Your task to perform on an android device: empty trash in the gmail app Image 0: 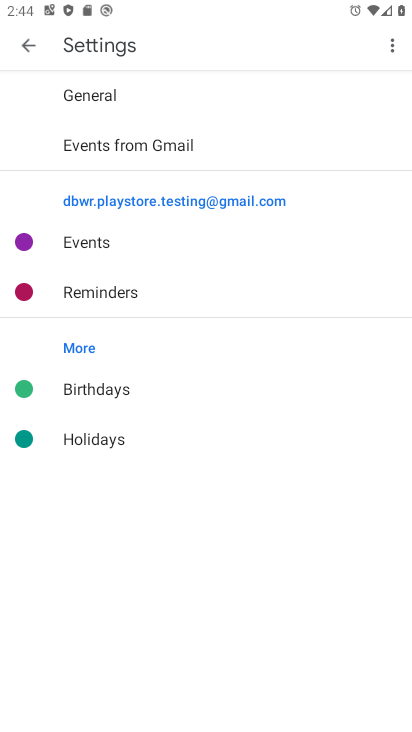
Step 0: press home button
Your task to perform on an android device: empty trash in the gmail app Image 1: 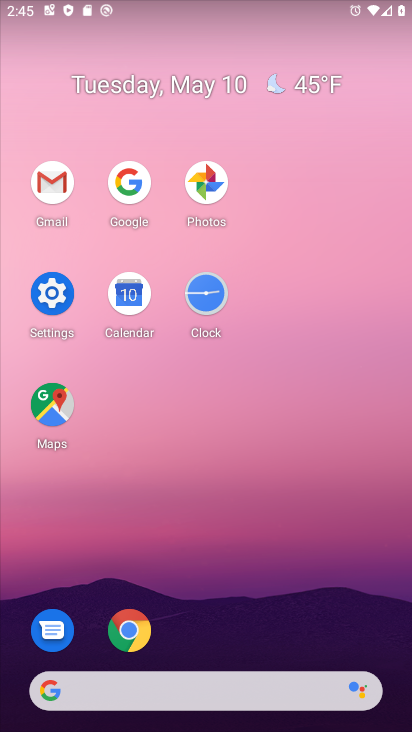
Step 1: drag from (236, 626) to (265, 162)
Your task to perform on an android device: empty trash in the gmail app Image 2: 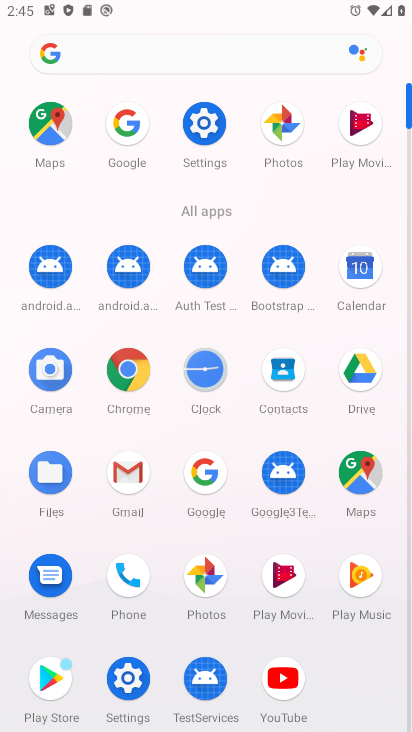
Step 2: drag from (132, 465) to (274, 200)
Your task to perform on an android device: empty trash in the gmail app Image 3: 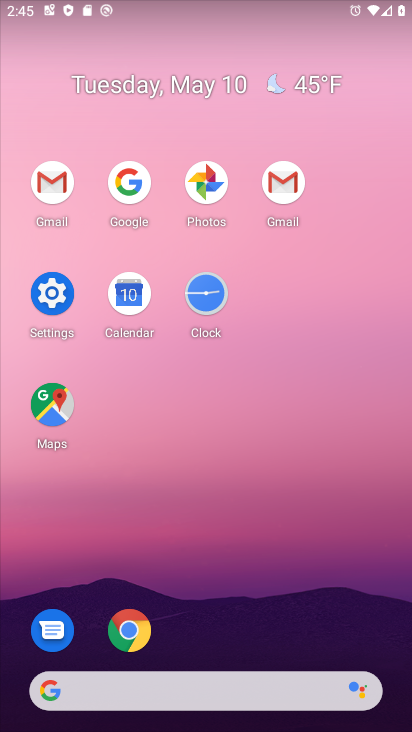
Step 3: click (278, 189)
Your task to perform on an android device: empty trash in the gmail app Image 4: 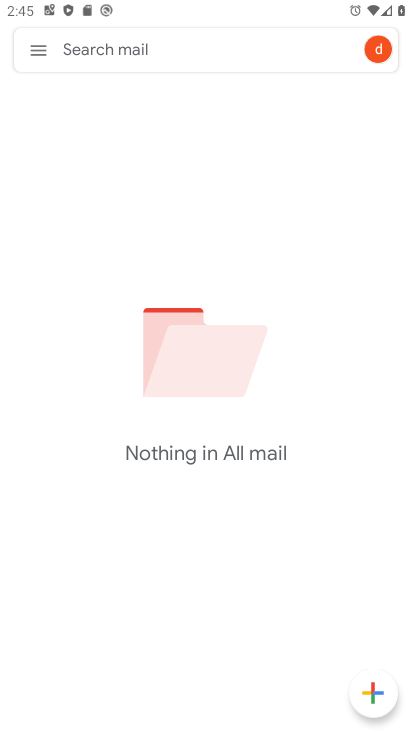
Step 4: click (44, 49)
Your task to perform on an android device: empty trash in the gmail app Image 5: 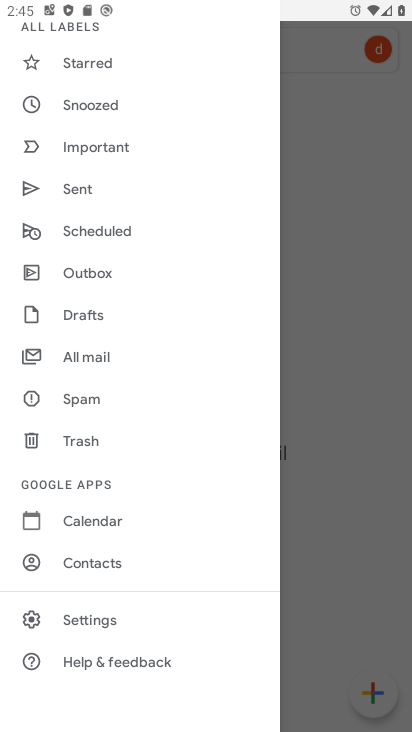
Step 5: click (95, 438)
Your task to perform on an android device: empty trash in the gmail app Image 6: 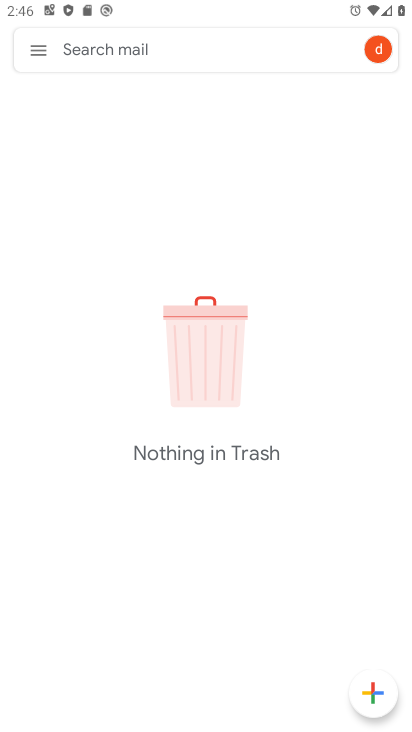
Step 6: task complete